Your task to perform on an android device: Open Google Maps and go to "Timeline" Image 0: 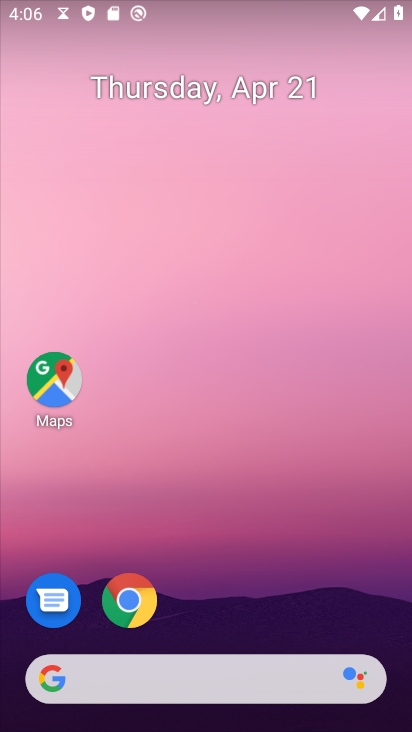
Step 0: click (54, 382)
Your task to perform on an android device: Open Google Maps and go to "Timeline" Image 1: 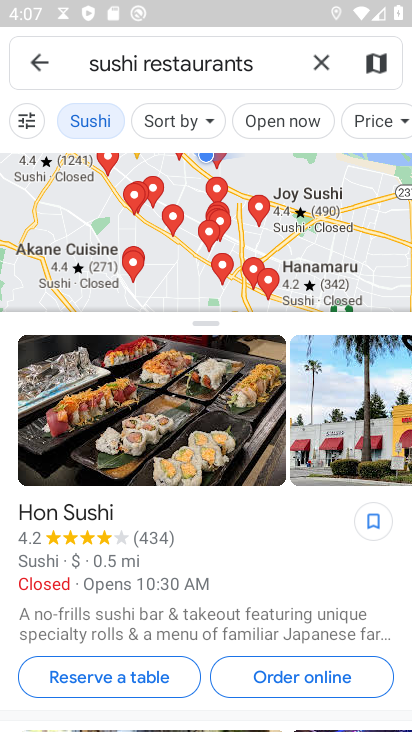
Step 1: click (327, 64)
Your task to perform on an android device: Open Google Maps and go to "Timeline" Image 2: 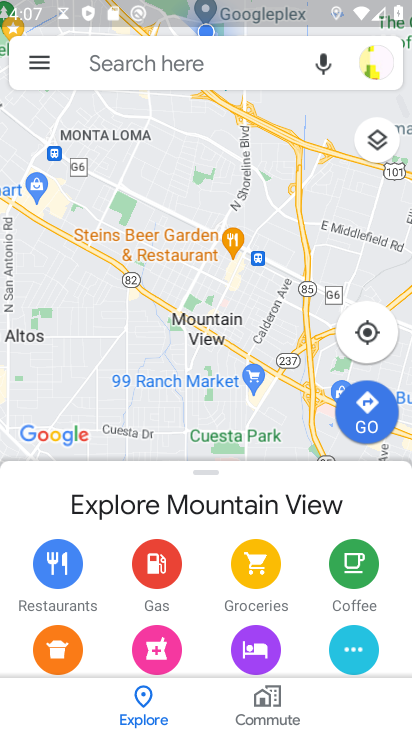
Step 2: click (40, 57)
Your task to perform on an android device: Open Google Maps and go to "Timeline" Image 3: 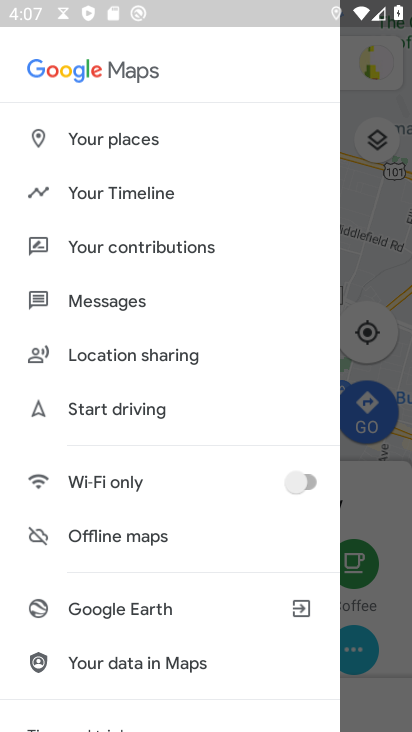
Step 3: click (124, 193)
Your task to perform on an android device: Open Google Maps and go to "Timeline" Image 4: 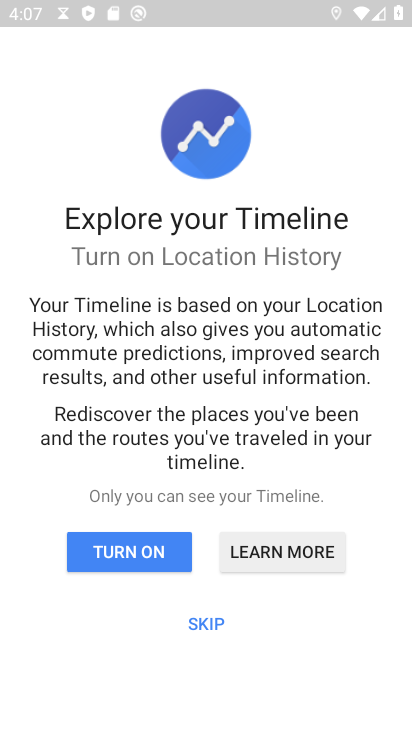
Step 4: click (166, 565)
Your task to perform on an android device: Open Google Maps and go to "Timeline" Image 5: 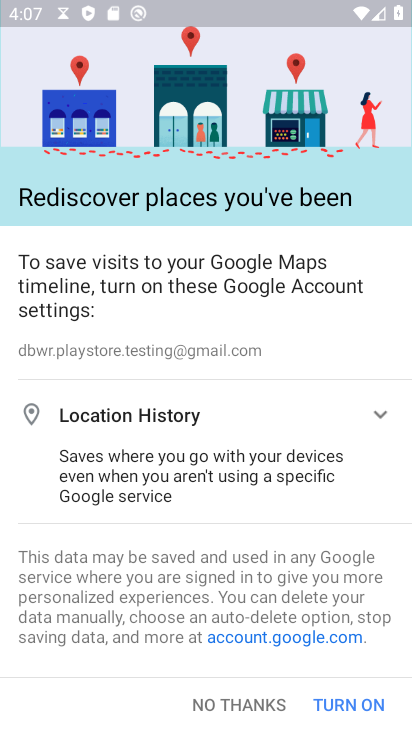
Step 5: click (354, 708)
Your task to perform on an android device: Open Google Maps and go to "Timeline" Image 6: 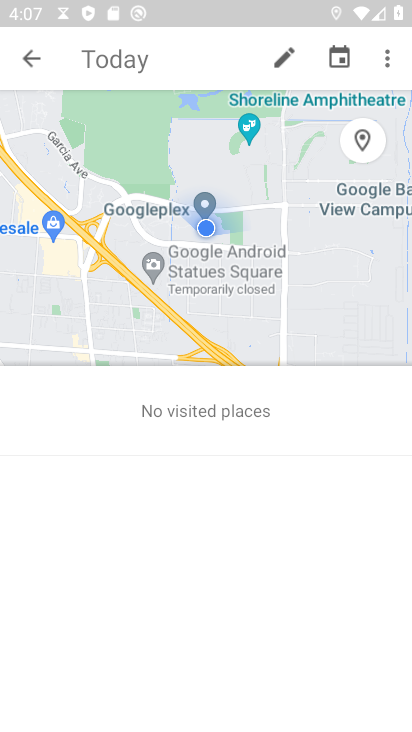
Step 6: task complete